Your task to perform on an android device: Go to battery settings Image 0: 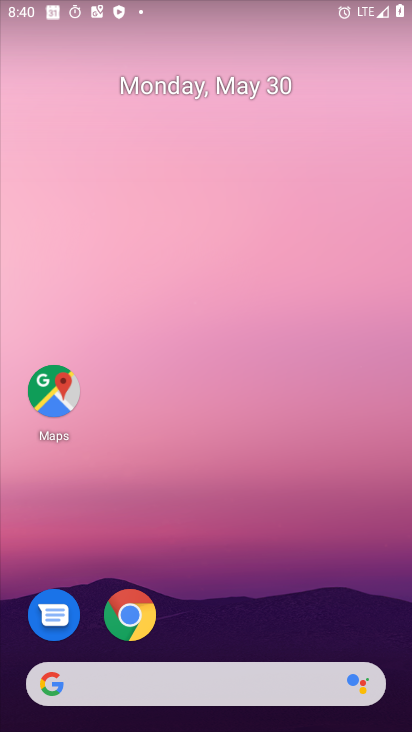
Step 0: drag from (247, 567) to (235, 49)
Your task to perform on an android device: Go to battery settings Image 1: 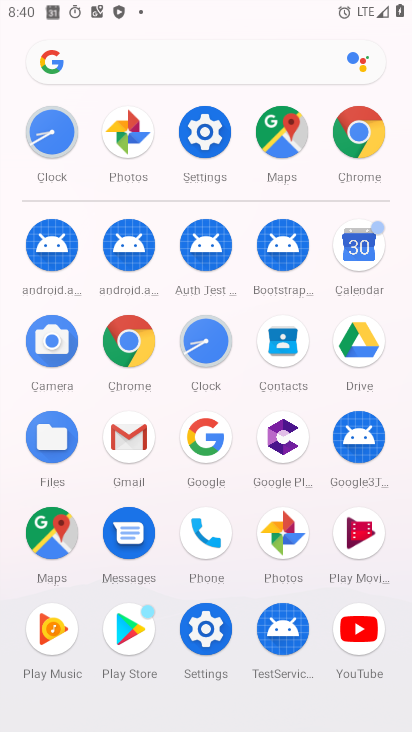
Step 1: click (204, 127)
Your task to perform on an android device: Go to battery settings Image 2: 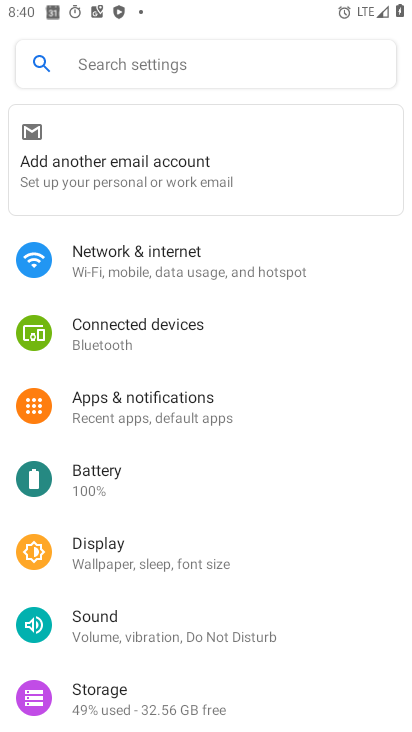
Step 2: click (83, 473)
Your task to perform on an android device: Go to battery settings Image 3: 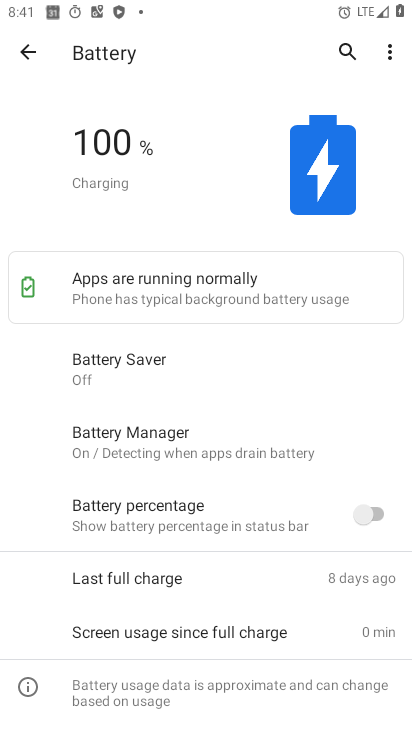
Step 3: task complete